Your task to perform on an android device: Open Chrome and go to the settings page Image 0: 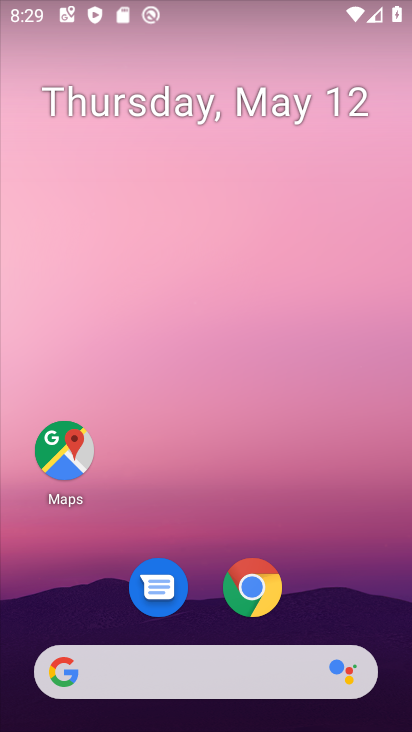
Step 0: drag from (330, 470) to (300, 258)
Your task to perform on an android device: Open Chrome and go to the settings page Image 1: 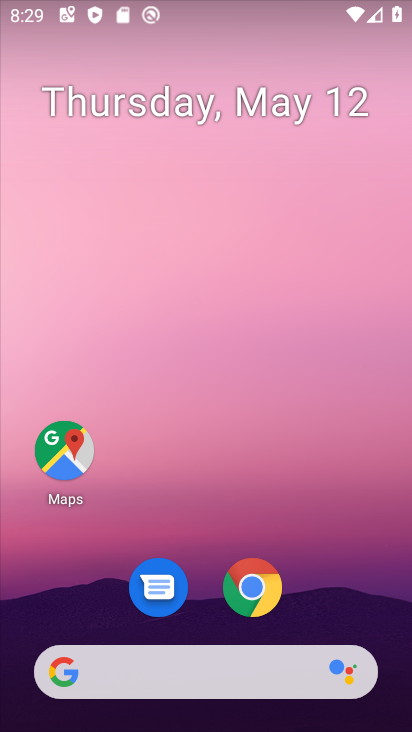
Step 1: drag from (335, 529) to (324, 215)
Your task to perform on an android device: Open Chrome and go to the settings page Image 2: 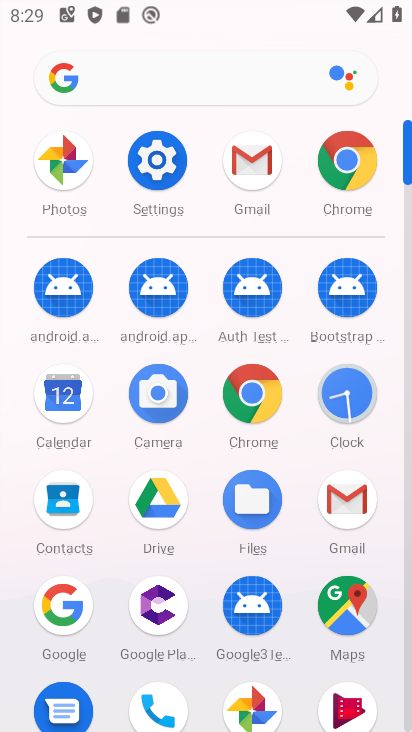
Step 2: click (345, 149)
Your task to perform on an android device: Open Chrome and go to the settings page Image 3: 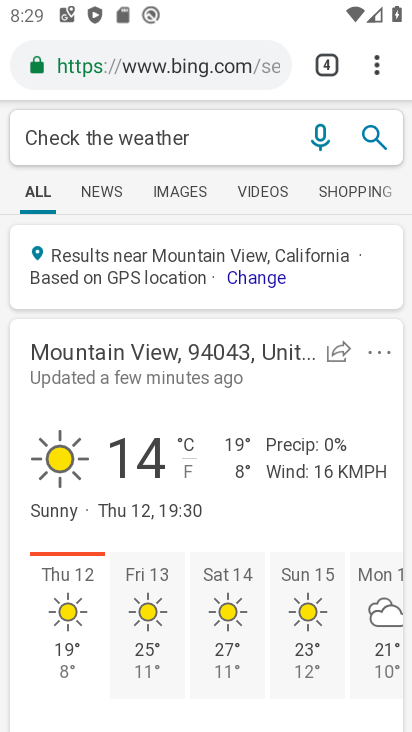
Step 3: click (358, 61)
Your task to perform on an android device: Open Chrome and go to the settings page Image 4: 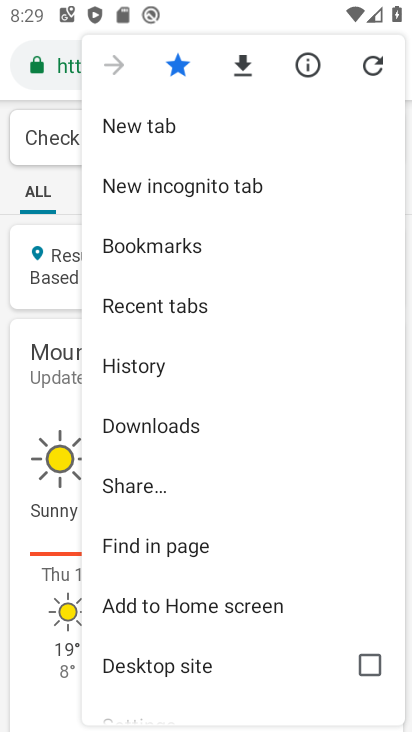
Step 4: drag from (186, 618) to (280, 193)
Your task to perform on an android device: Open Chrome and go to the settings page Image 5: 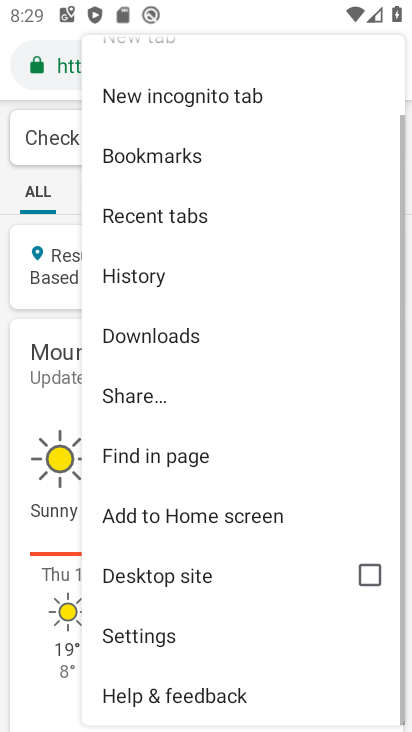
Step 5: click (162, 633)
Your task to perform on an android device: Open Chrome and go to the settings page Image 6: 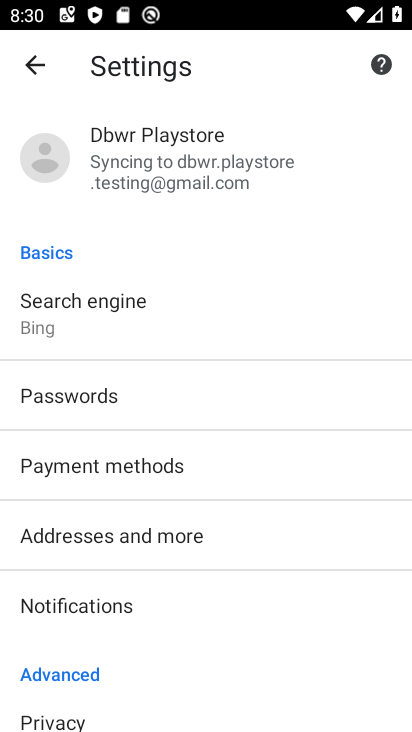
Step 6: task complete